Your task to perform on an android device: open app "AliExpress" (install if not already installed), go to login, and select forgot password Image 0: 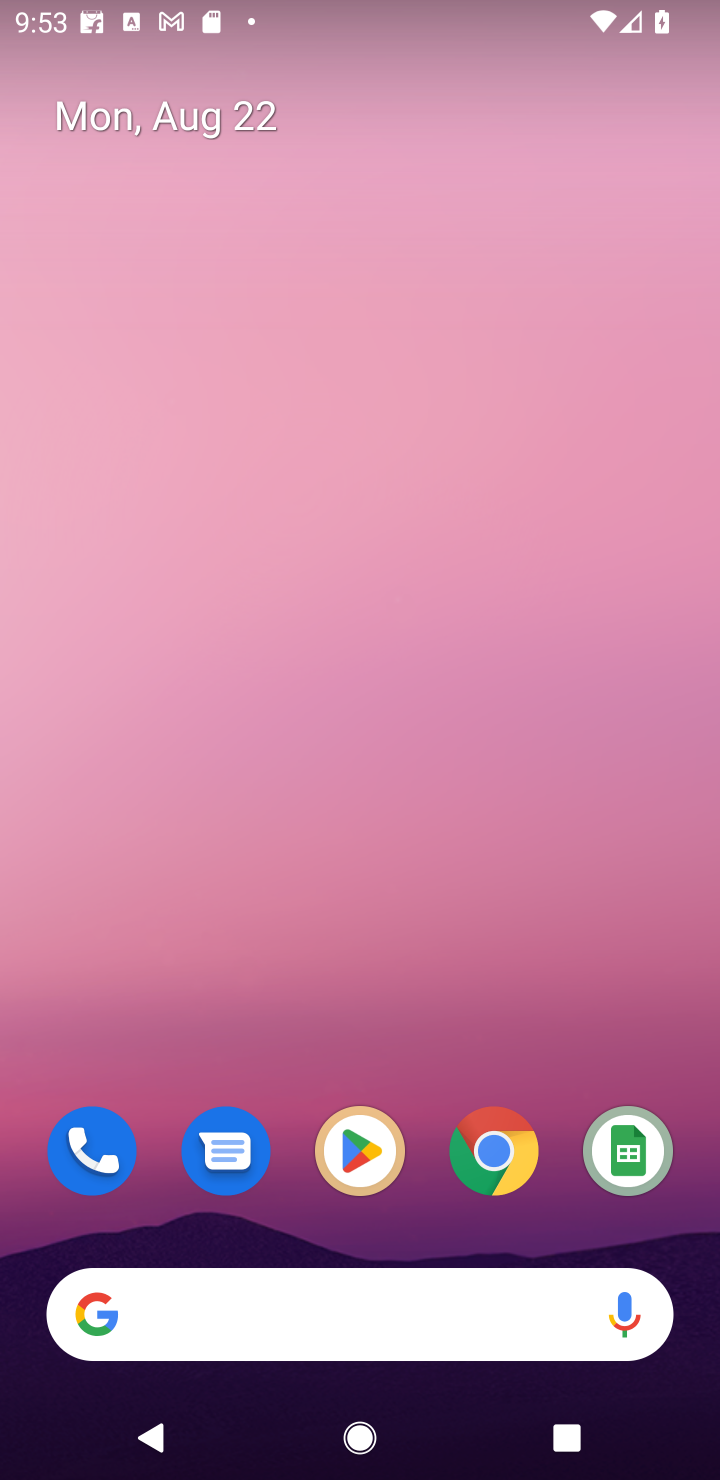
Step 0: click (349, 1149)
Your task to perform on an android device: open app "AliExpress" (install if not already installed), go to login, and select forgot password Image 1: 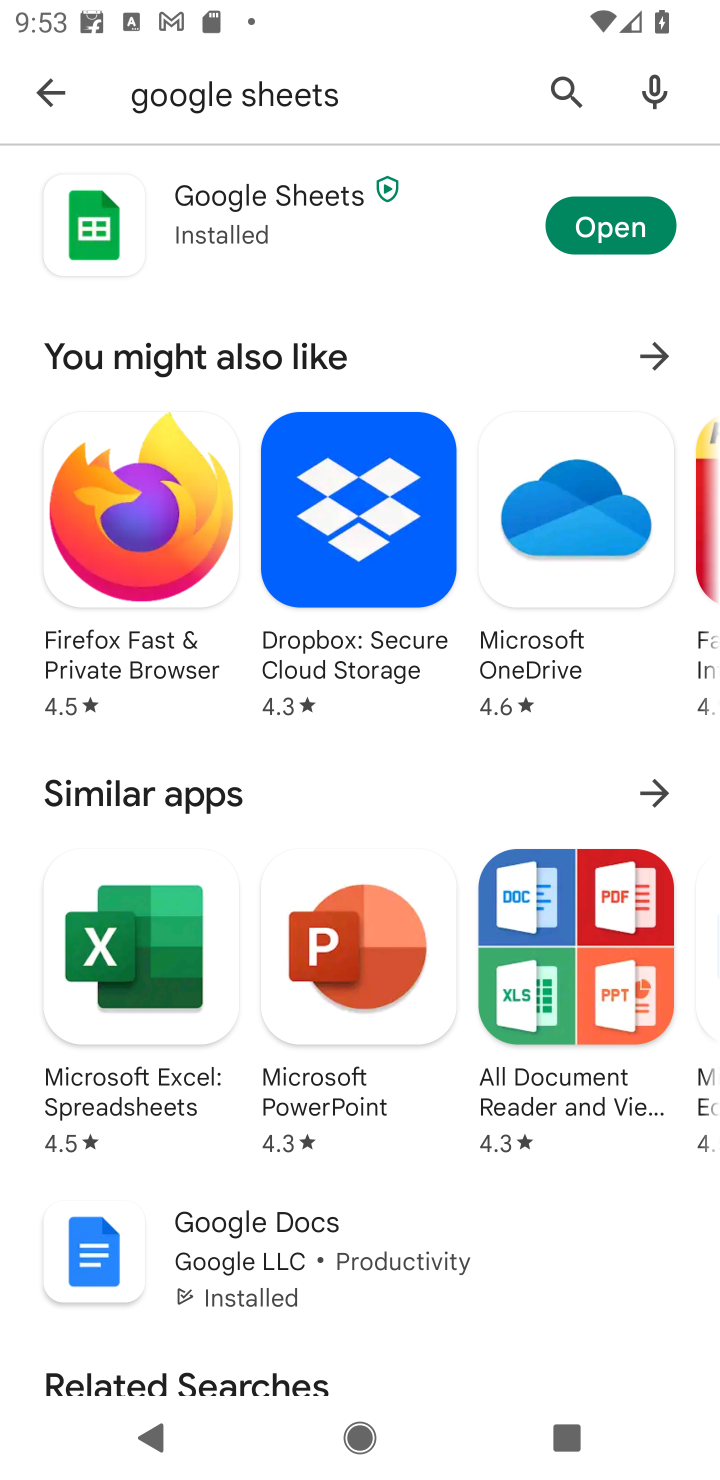
Step 1: click (553, 72)
Your task to perform on an android device: open app "AliExpress" (install if not already installed), go to login, and select forgot password Image 2: 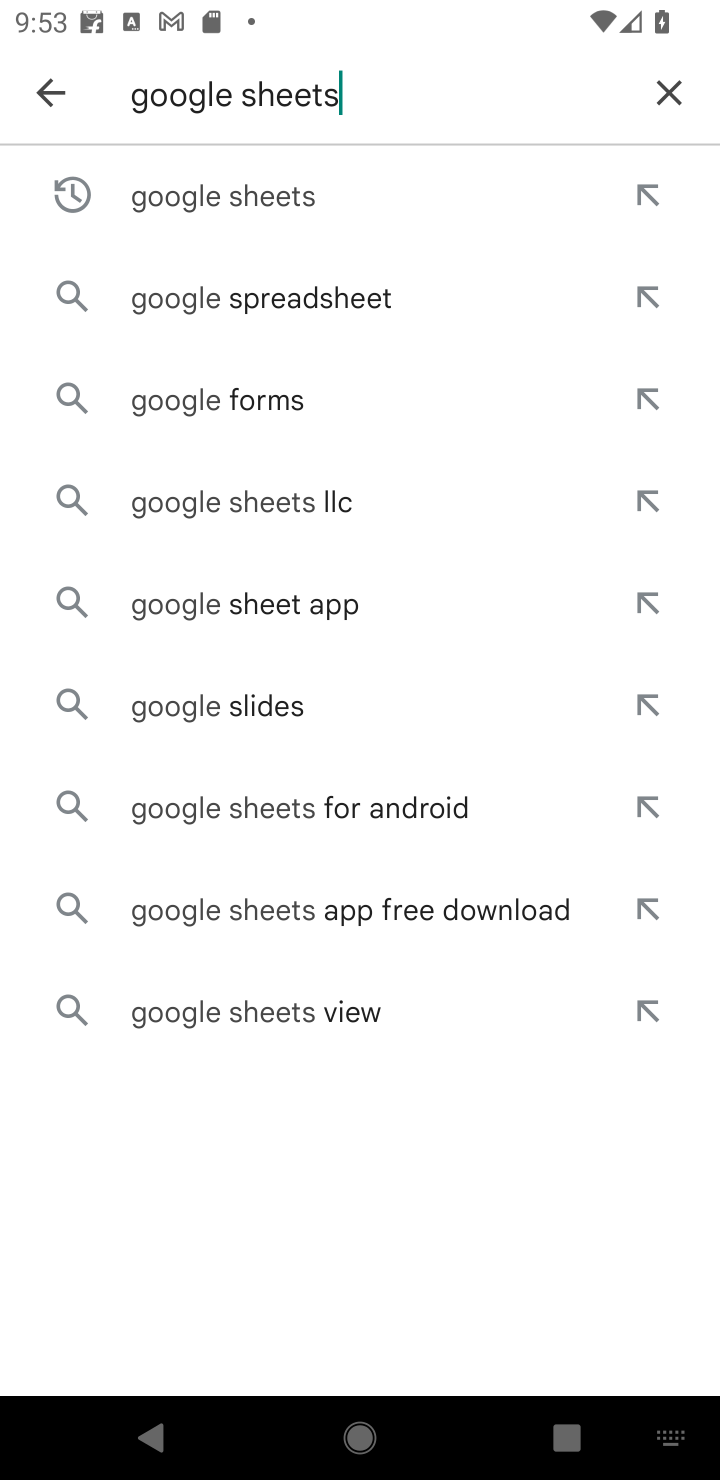
Step 2: click (652, 89)
Your task to perform on an android device: open app "AliExpress" (install if not already installed), go to login, and select forgot password Image 3: 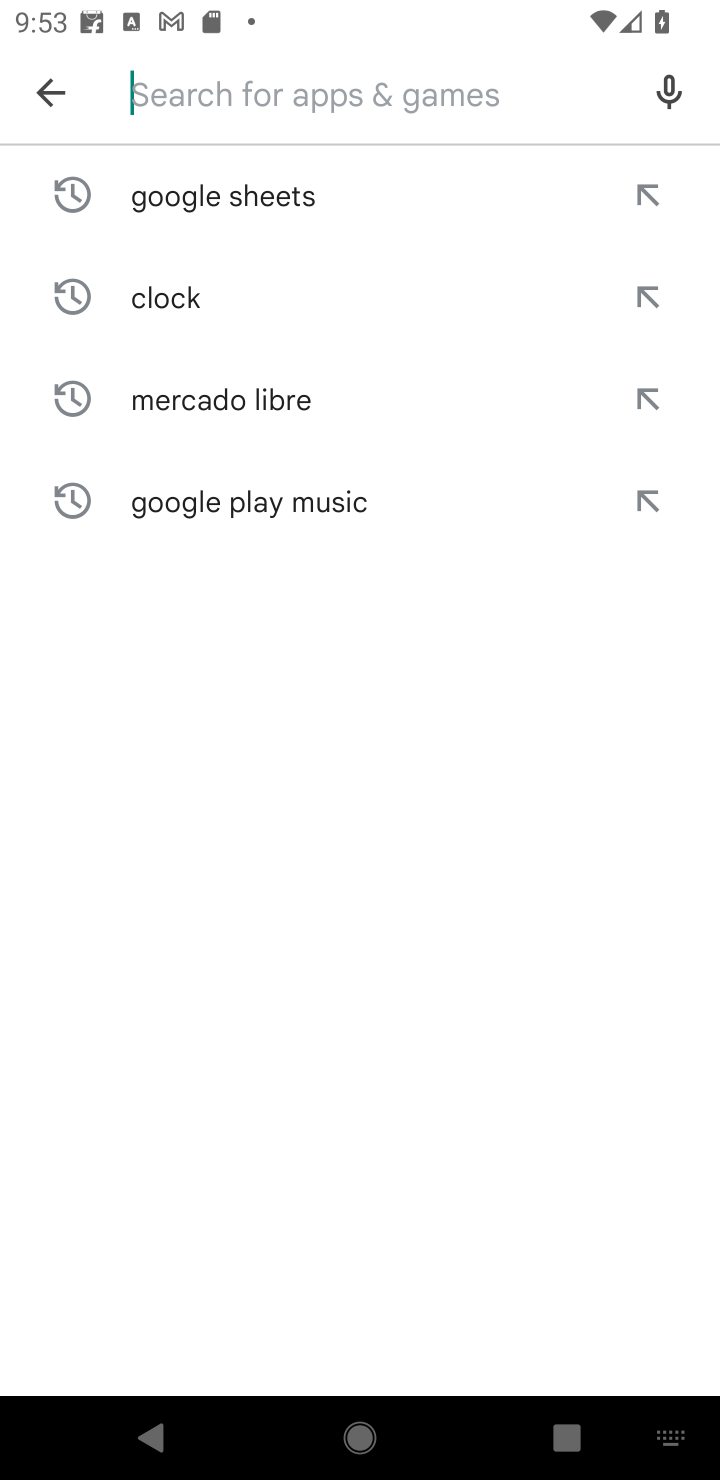
Step 3: type "AliExpress"
Your task to perform on an android device: open app "AliExpress" (install if not already installed), go to login, and select forgot password Image 4: 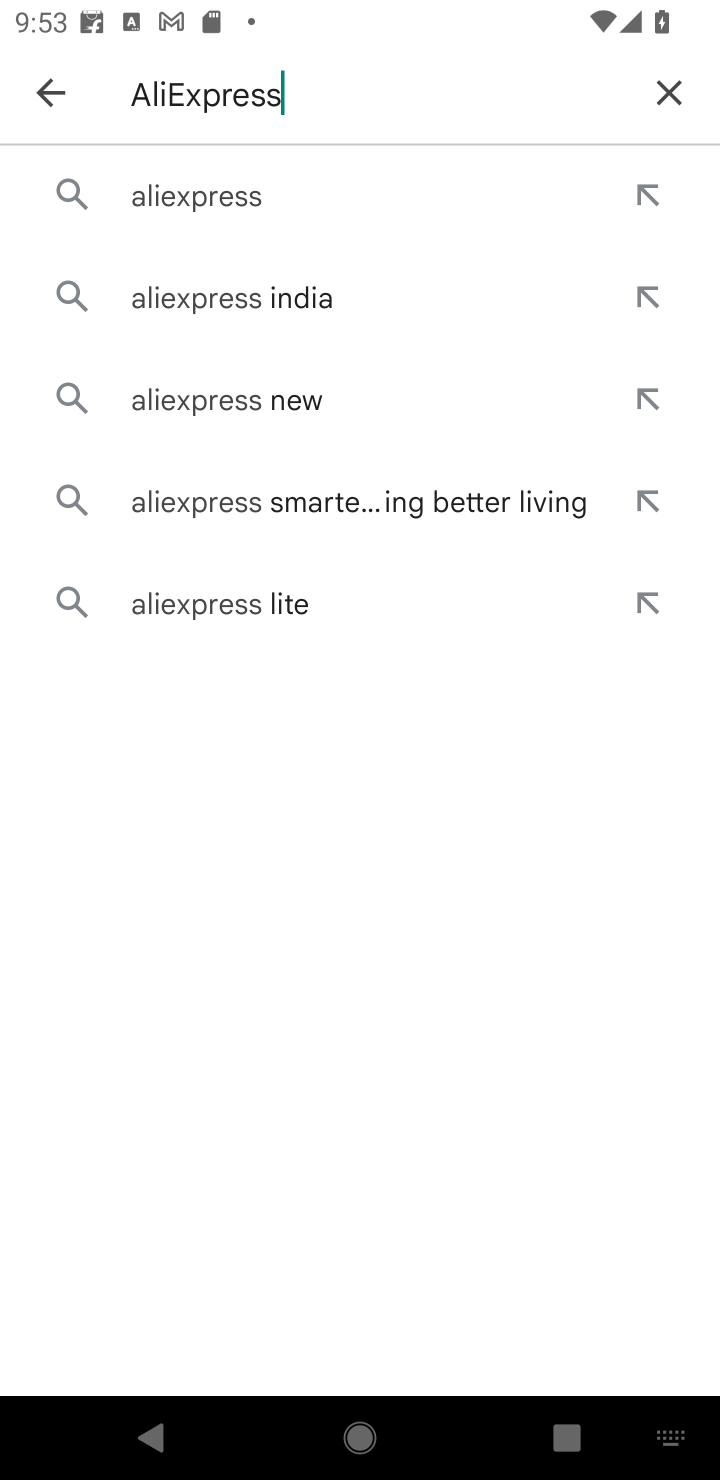
Step 4: click (188, 185)
Your task to perform on an android device: open app "AliExpress" (install if not already installed), go to login, and select forgot password Image 5: 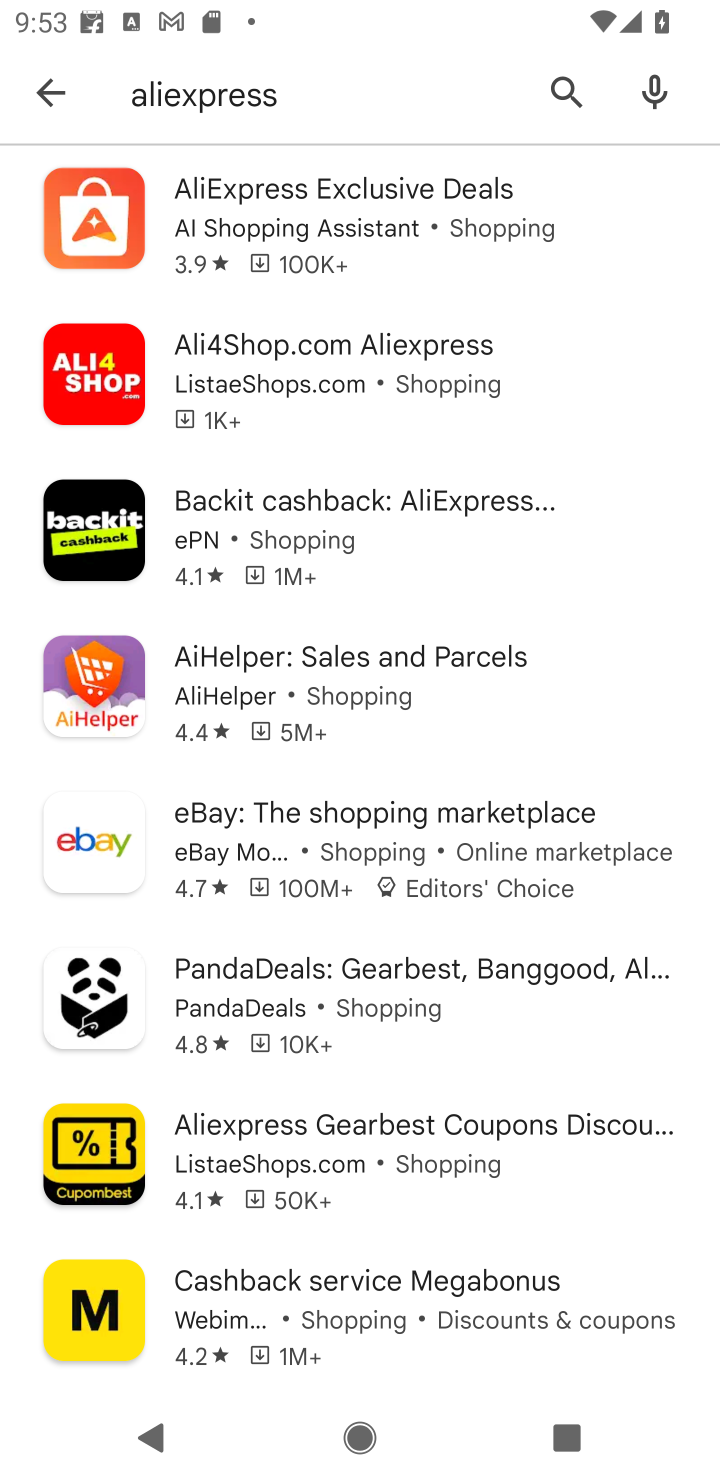
Step 5: click (313, 239)
Your task to perform on an android device: open app "AliExpress" (install if not already installed), go to login, and select forgot password Image 6: 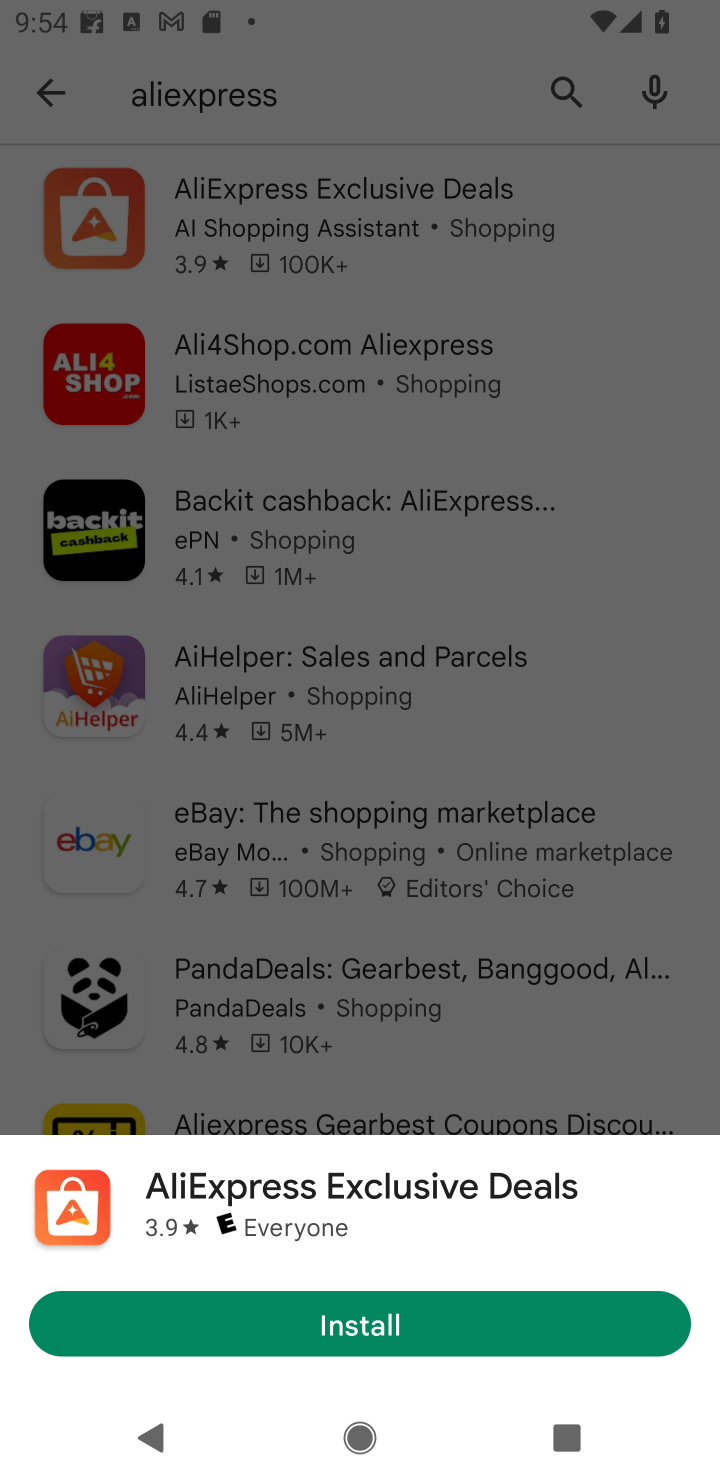
Step 6: click (372, 1319)
Your task to perform on an android device: open app "AliExpress" (install if not already installed), go to login, and select forgot password Image 7: 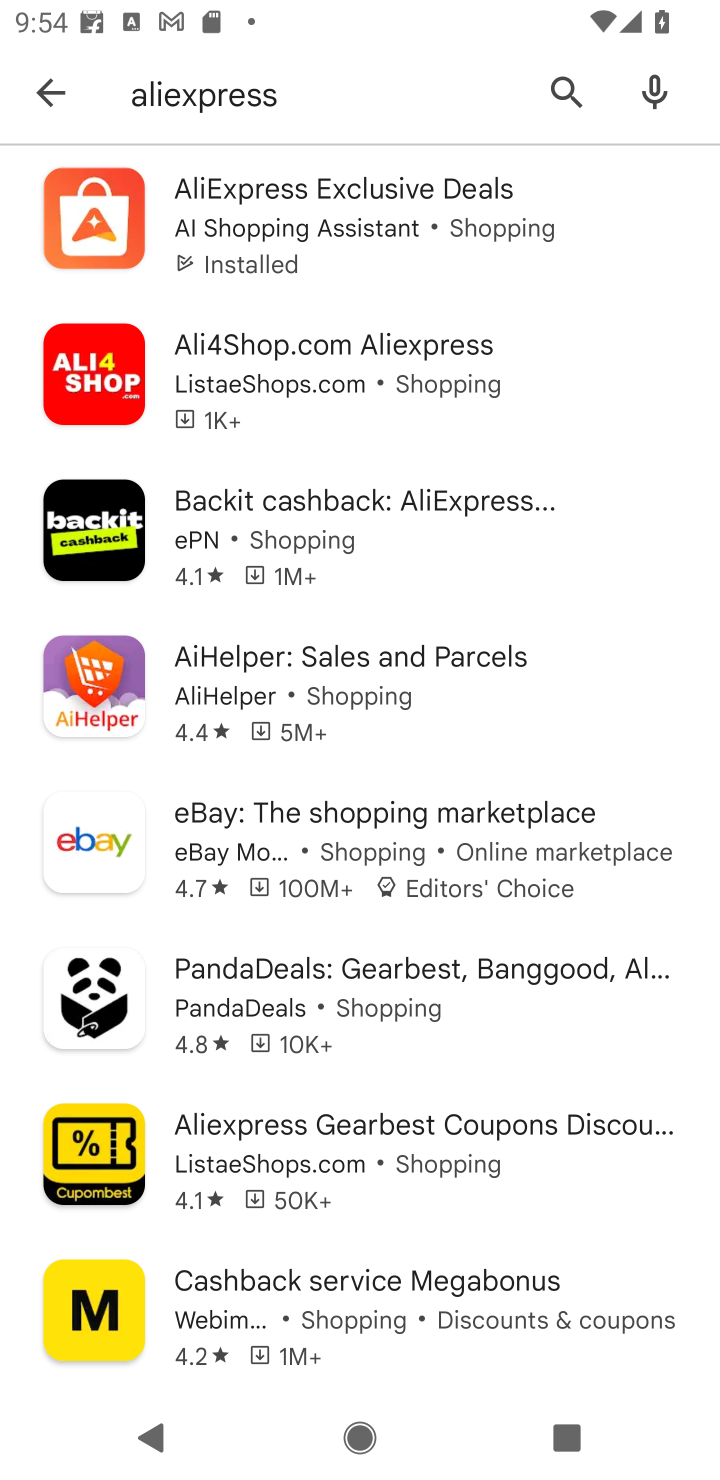
Step 7: click (325, 224)
Your task to perform on an android device: open app "AliExpress" (install if not already installed), go to login, and select forgot password Image 8: 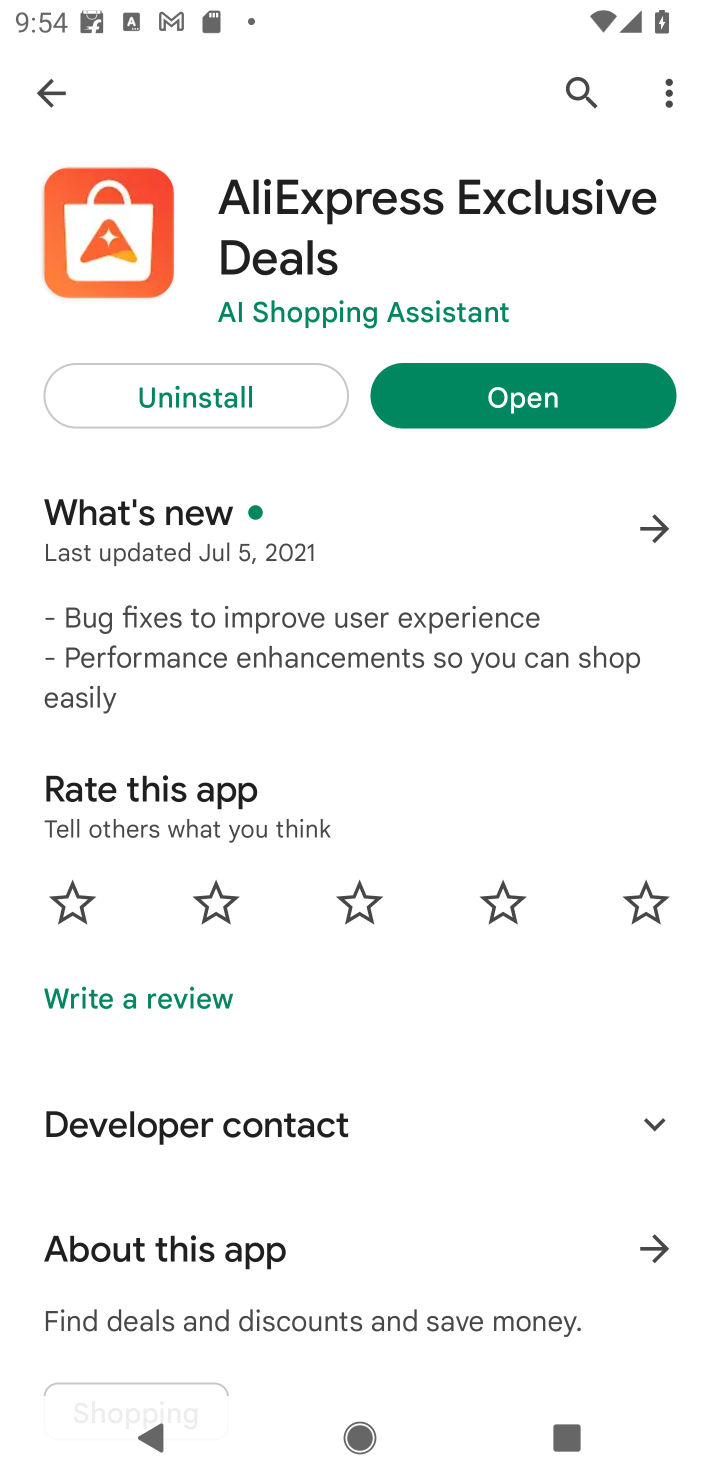
Step 8: click (538, 403)
Your task to perform on an android device: open app "AliExpress" (install if not already installed), go to login, and select forgot password Image 9: 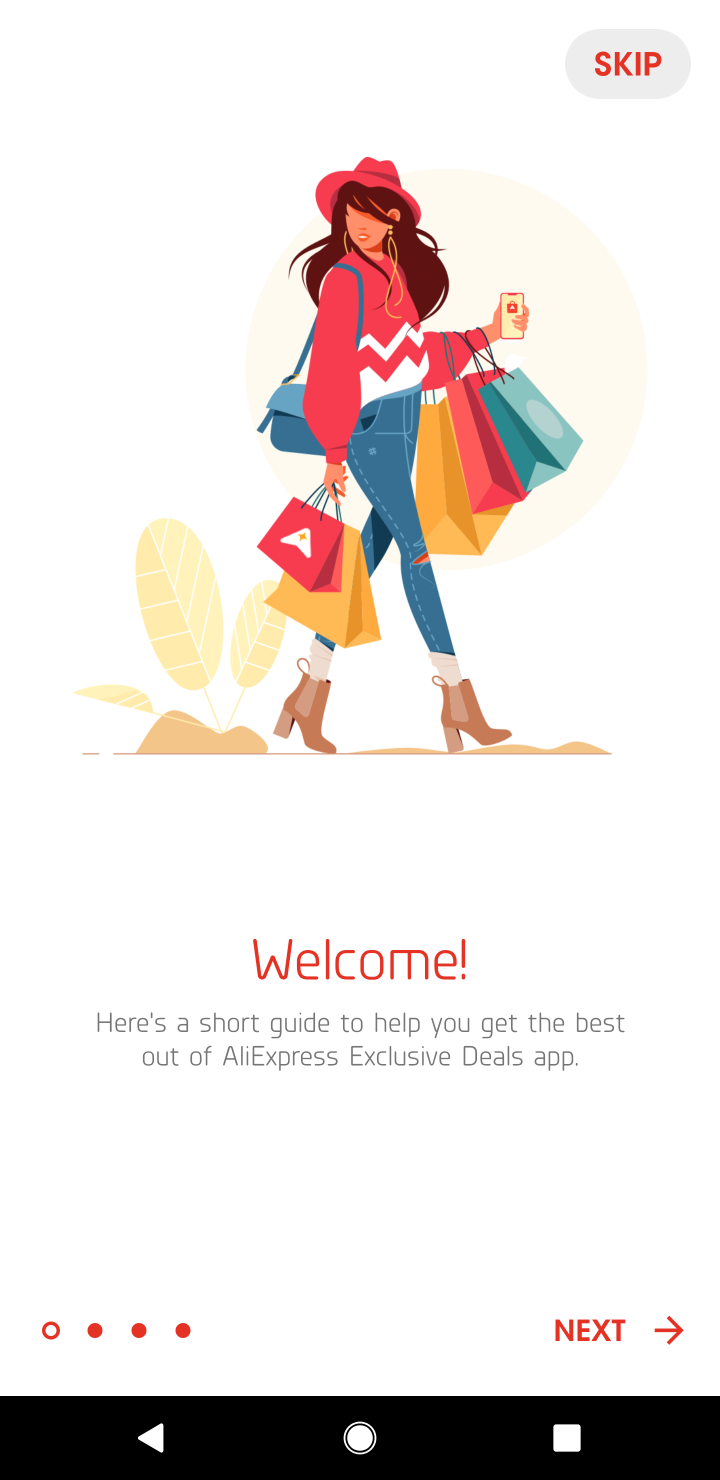
Step 9: click (662, 75)
Your task to perform on an android device: open app "AliExpress" (install if not already installed), go to login, and select forgot password Image 10: 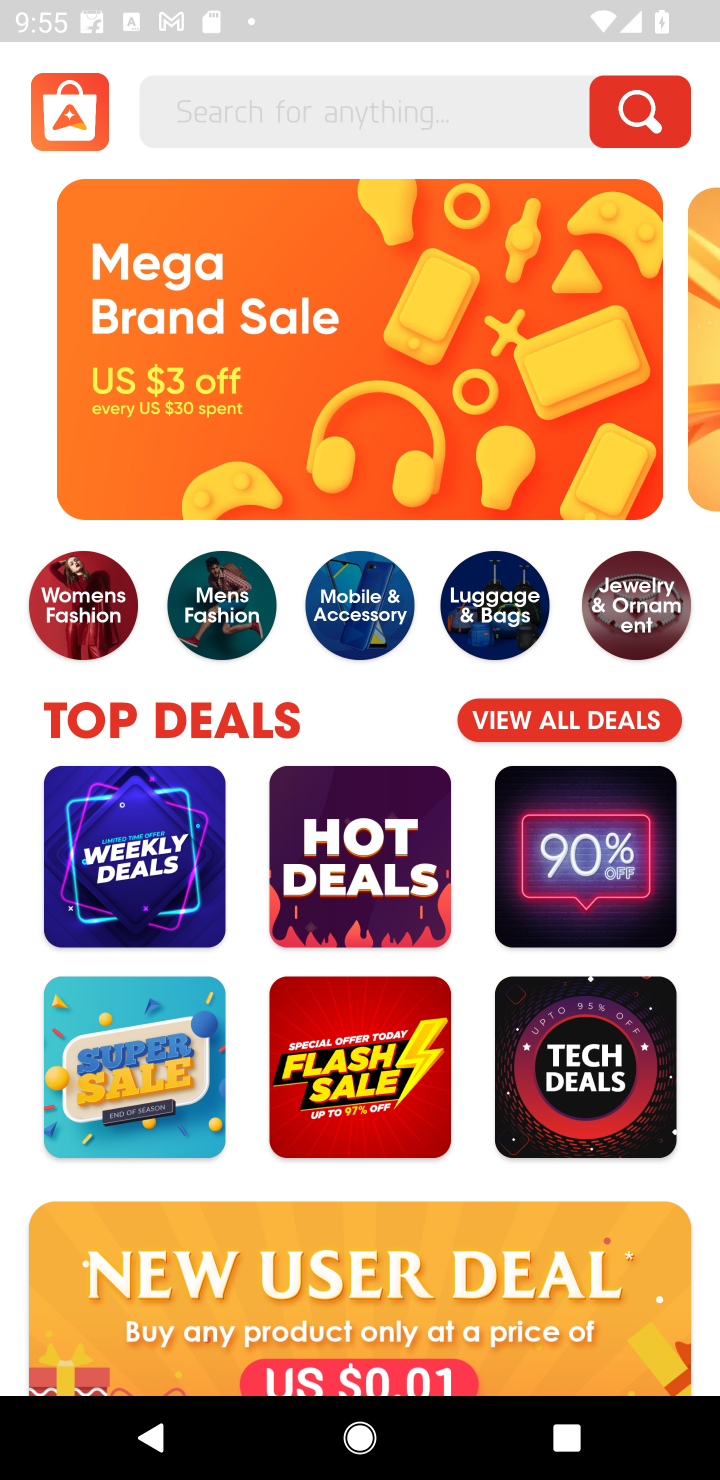
Step 10: task complete